Your task to perform on an android device: Show the shopping cart on walmart.com. Search for usb-b on walmart.com, select the first entry, add it to the cart, then select checkout. Image 0: 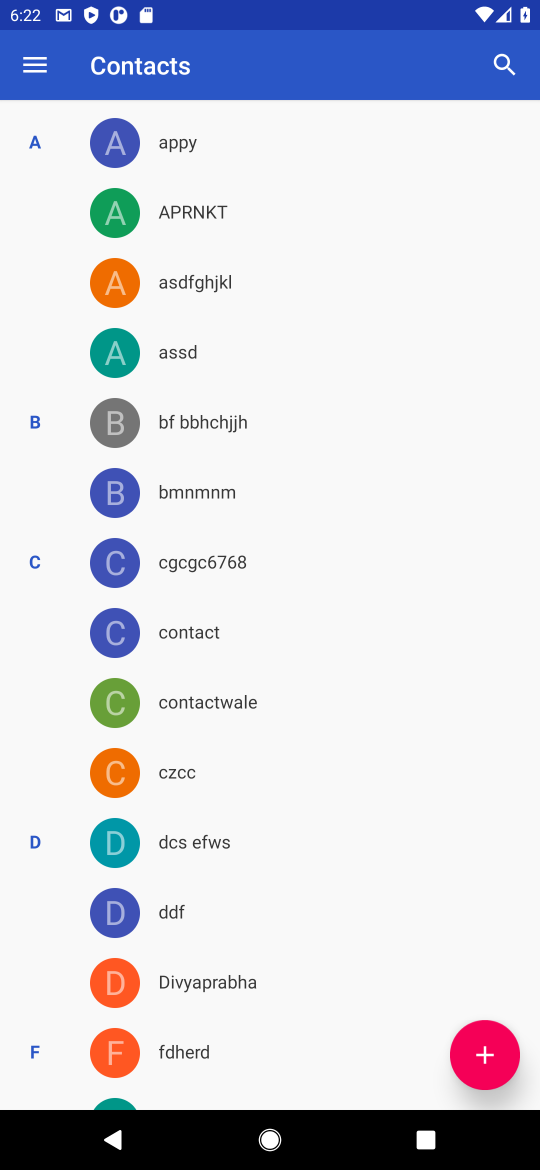
Step 0: press home button
Your task to perform on an android device: Show the shopping cart on walmart.com. Search for usb-b on walmart.com, select the first entry, add it to the cart, then select checkout. Image 1: 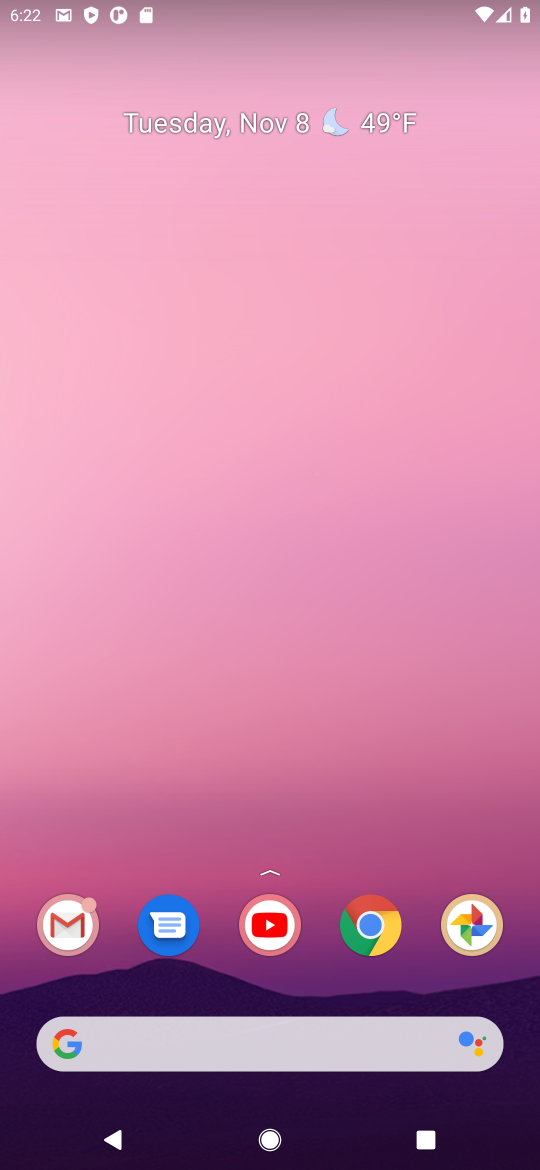
Step 1: click (362, 940)
Your task to perform on an android device: Show the shopping cart on walmart.com. Search for usb-b on walmart.com, select the first entry, add it to the cart, then select checkout. Image 2: 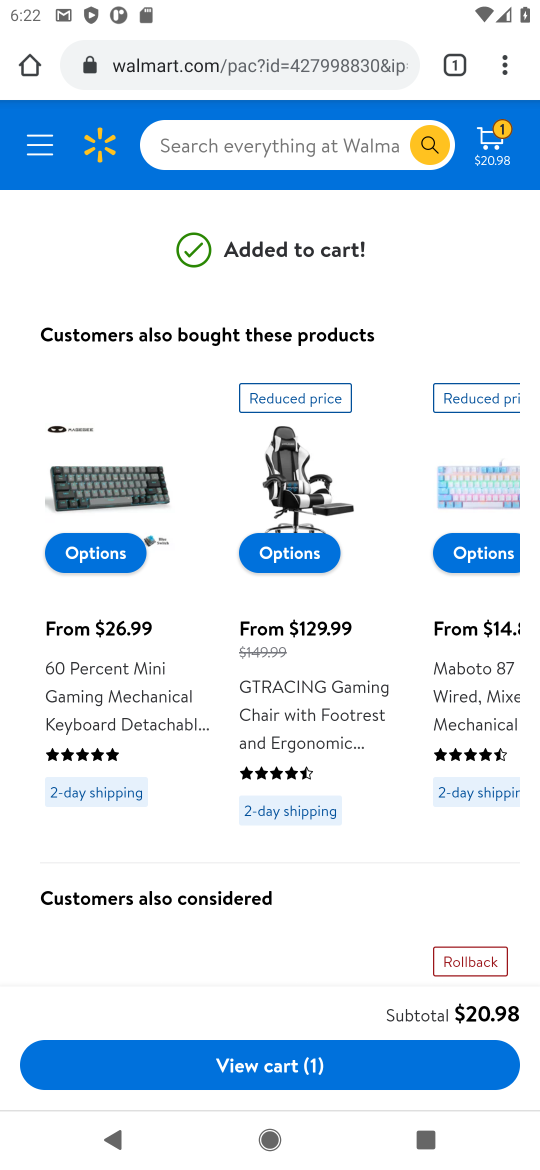
Step 2: click (318, 150)
Your task to perform on an android device: Show the shopping cart on walmart.com. Search for usb-b on walmart.com, select the first entry, add it to the cart, then select checkout. Image 3: 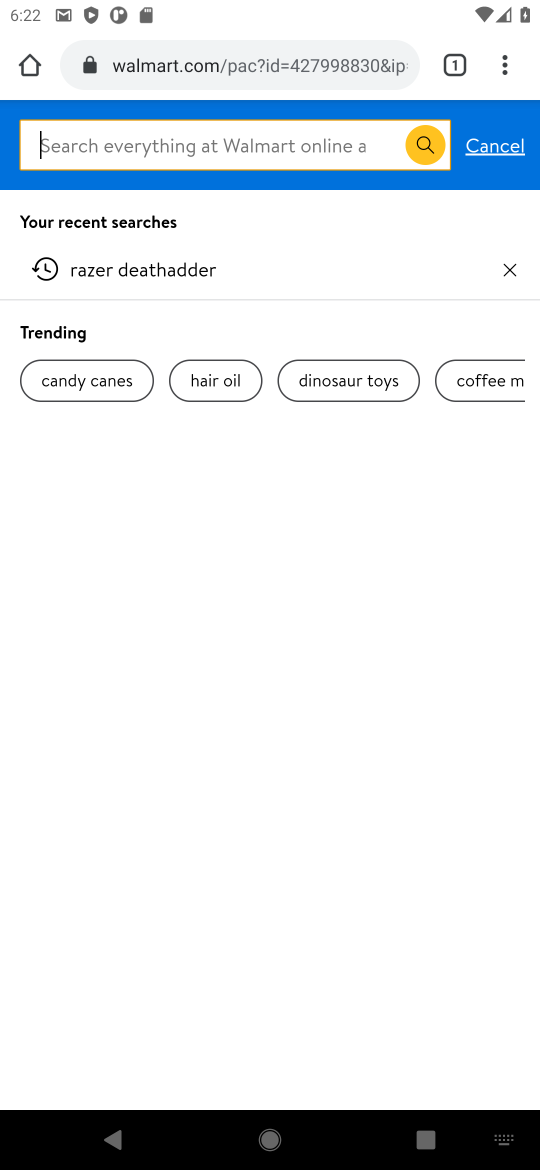
Step 3: type "usb-b"
Your task to perform on an android device: Show the shopping cart on walmart.com. Search for usb-b on walmart.com, select the first entry, add it to the cart, then select checkout. Image 4: 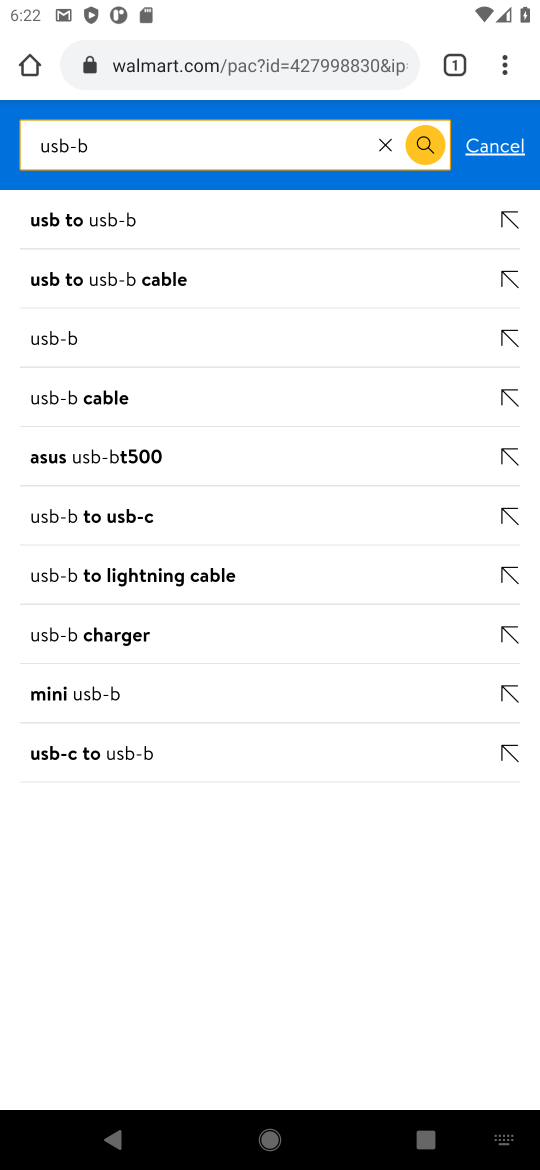
Step 4: click (100, 350)
Your task to perform on an android device: Show the shopping cart on walmart.com. Search for usb-b on walmart.com, select the first entry, add it to the cart, then select checkout. Image 5: 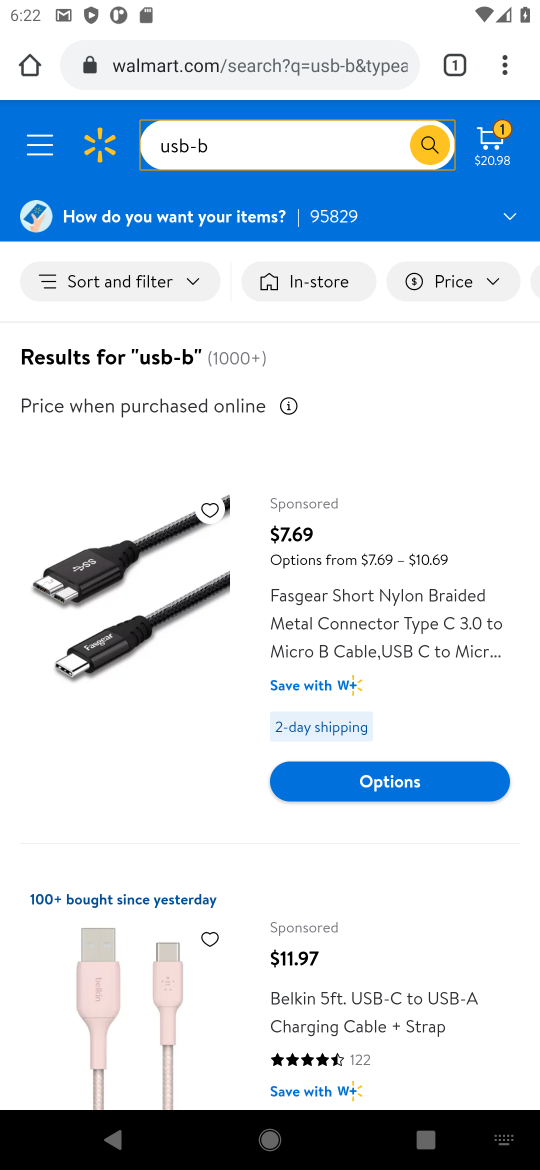
Step 5: click (127, 576)
Your task to perform on an android device: Show the shopping cart on walmart.com. Search for usb-b on walmart.com, select the first entry, add it to the cart, then select checkout. Image 6: 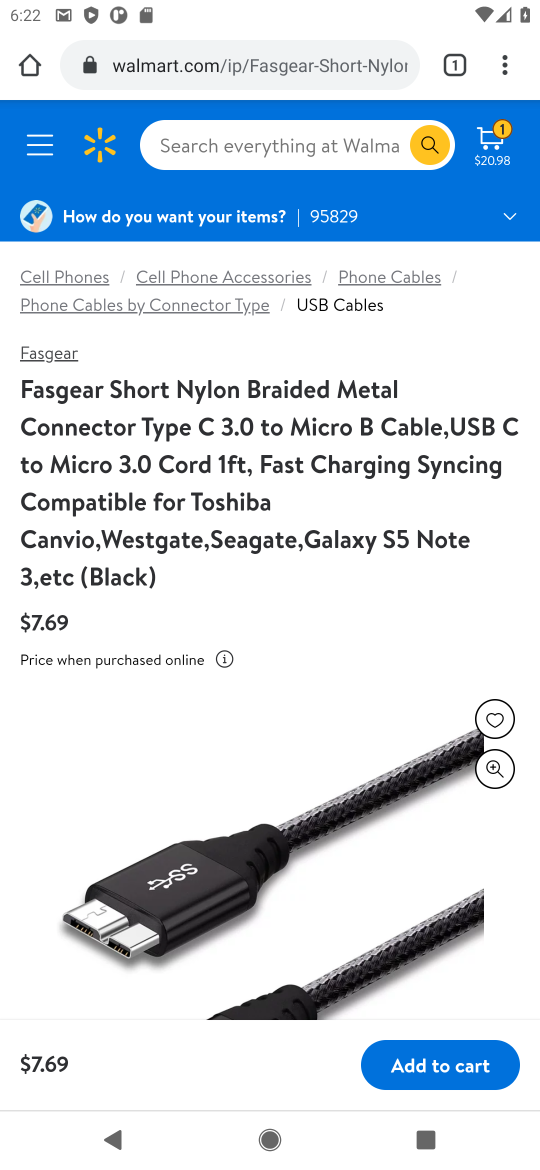
Step 6: click (423, 1070)
Your task to perform on an android device: Show the shopping cart on walmart.com. Search for usb-b on walmart.com, select the first entry, add it to the cart, then select checkout. Image 7: 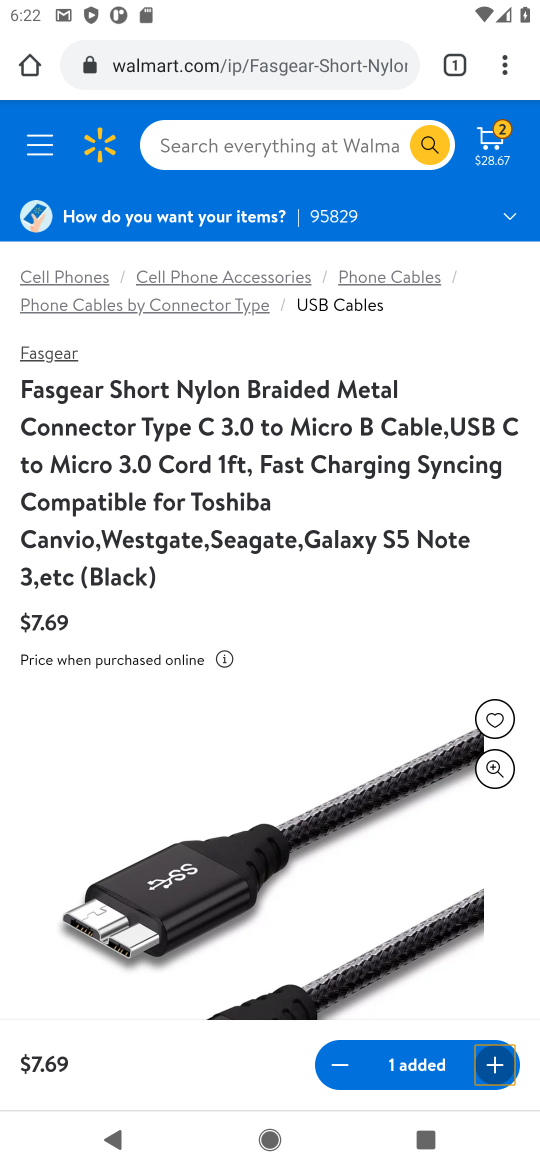
Step 7: drag from (230, 964) to (164, 937)
Your task to perform on an android device: Show the shopping cart on walmart.com. Search for usb-b on walmart.com, select the first entry, add it to the cart, then select checkout. Image 8: 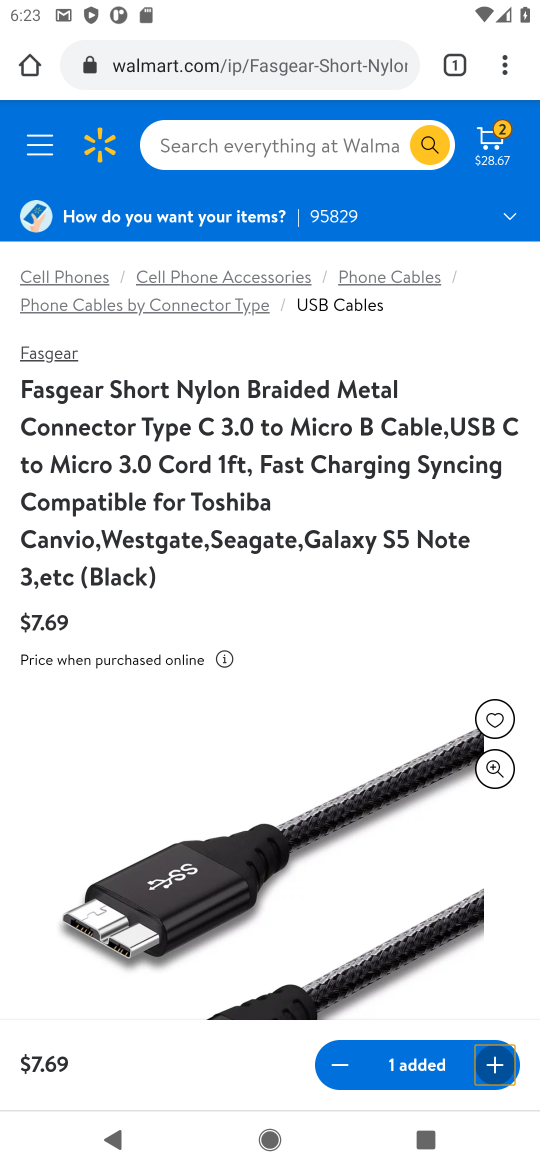
Step 8: click (498, 143)
Your task to perform on an android device: Show the shopping cart on walmart.com. Search for usb-b on walmart.com, select the first entry, add it to the cart, then select checkout. Image 9: 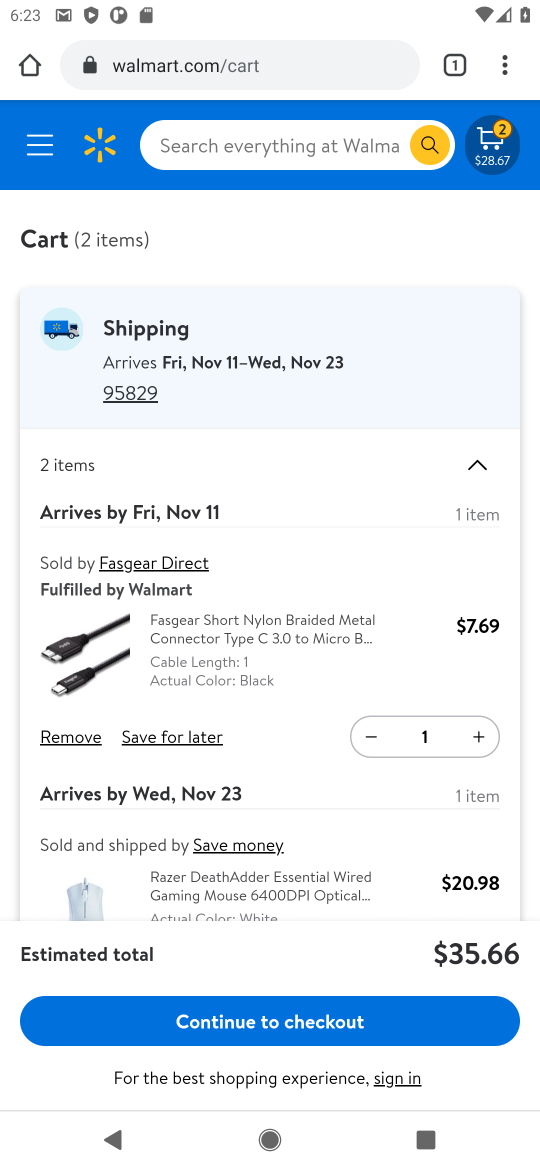
Step 9: click (293, 1030)
Your task to perform on an android device: Show the shopping cart on walmart.com. Search for usb-b on walmart.com, select the first entry, add it to the cart, then select checkout. Image 10: 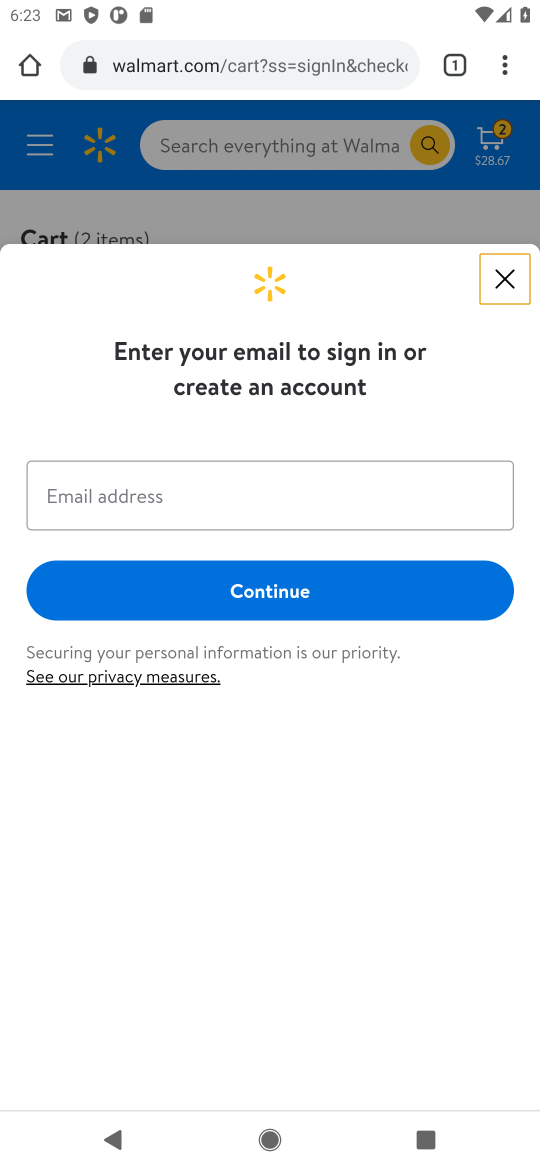
Step 10: task complete